Your task to perform on an android device: Go to accessibility settings Image 0: 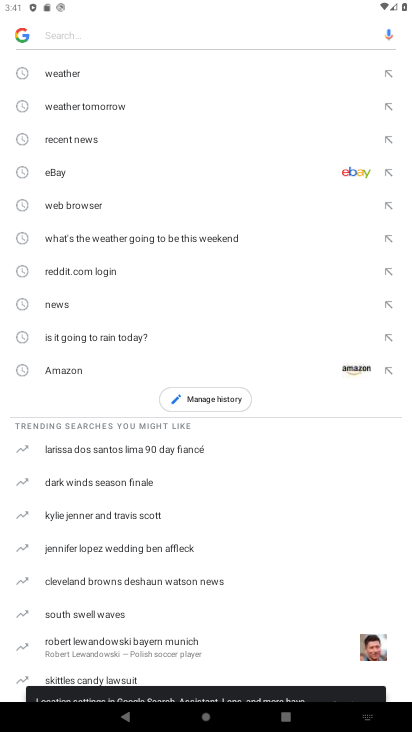
Step 0: press home button
Your task to perform on an android device: Go to accessibility settings Image 1: 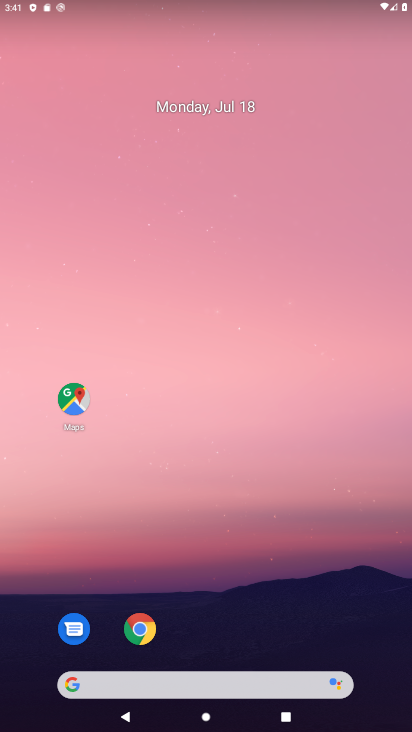
Step 1: drag from (160, 677) to (224, 29)
Your task to perform on an android device: Go to accessibility settings Image 2: 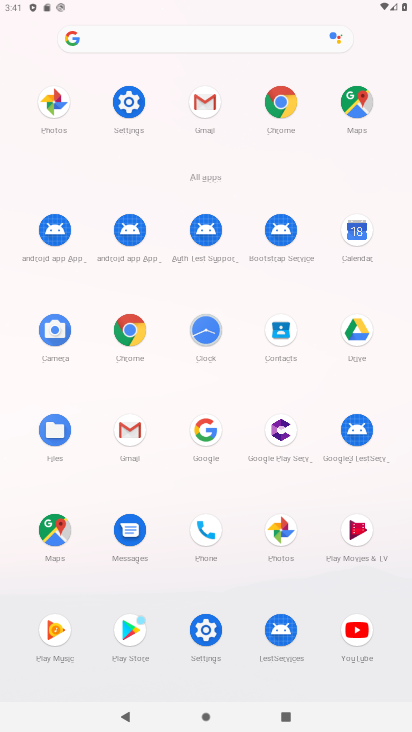
Step 2: click (210, 649)
Your task to perform on an android device: Go to accessibility settings Image 3: 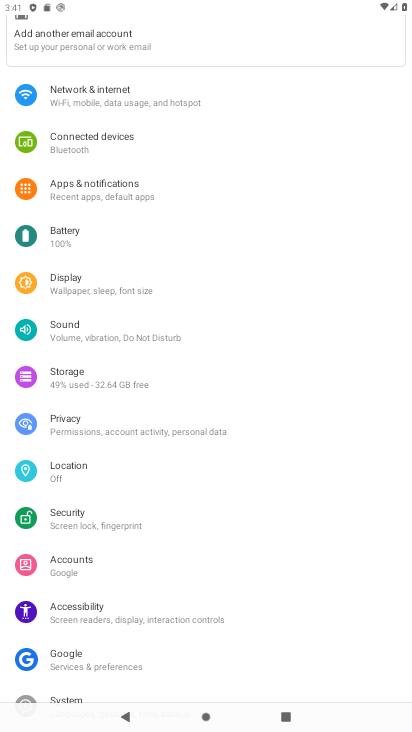
Step 3: click (112, 609)
Your task to perform on an android device: Go to accessibility settings Image 4: 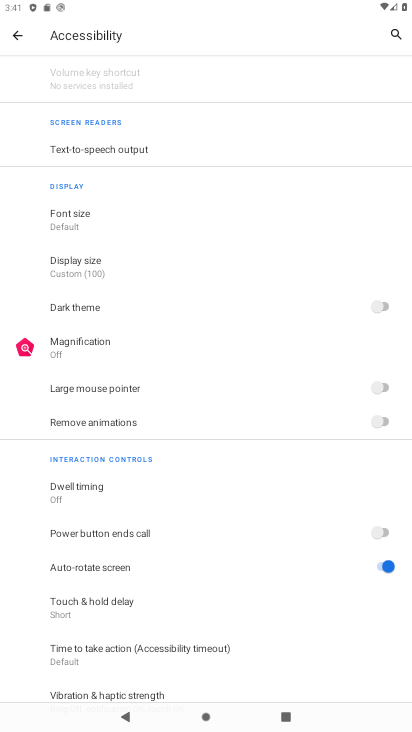
Step 4: task complete